Your task to perform on an android device: open a new tab in the chrome app Image 0: 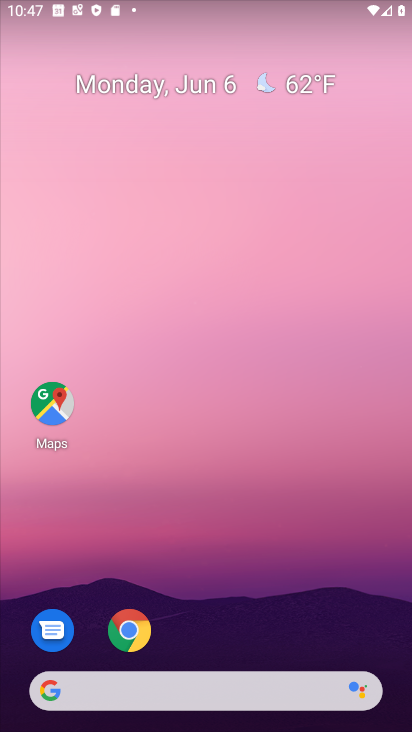
Step 0: drag from (300, 535) to (303, 164)
Your task to perform on an android device: open a new tab in the chrome app Image 1: 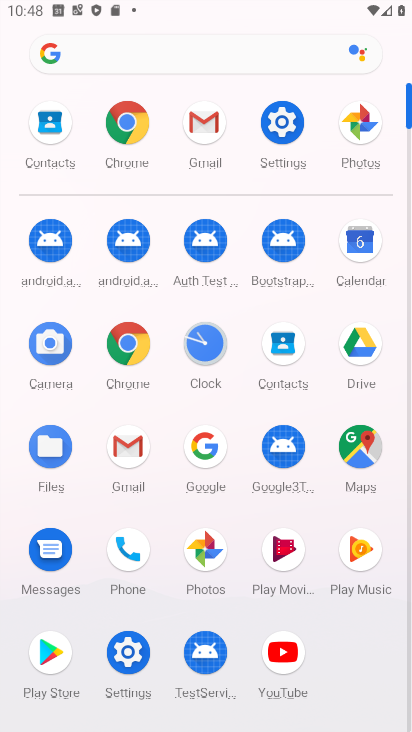
Step 1: click (139, 349)
Your task to perform on an android device: open a new tab in the chrome app Image 2: 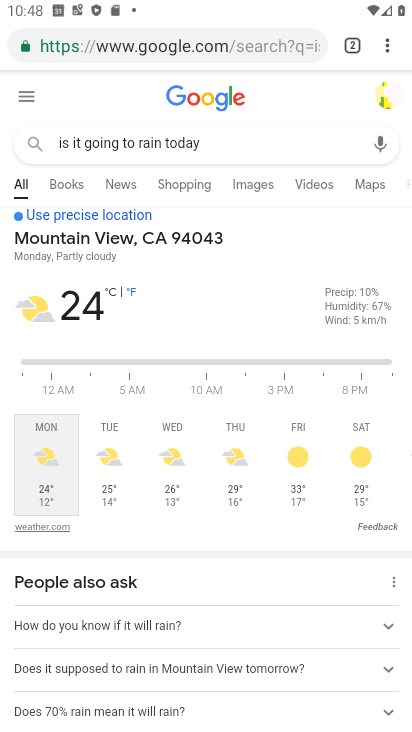
Step 2: click (355, 42)
Your task to perform on an android device: open a new tab in the chrome app Image 3: 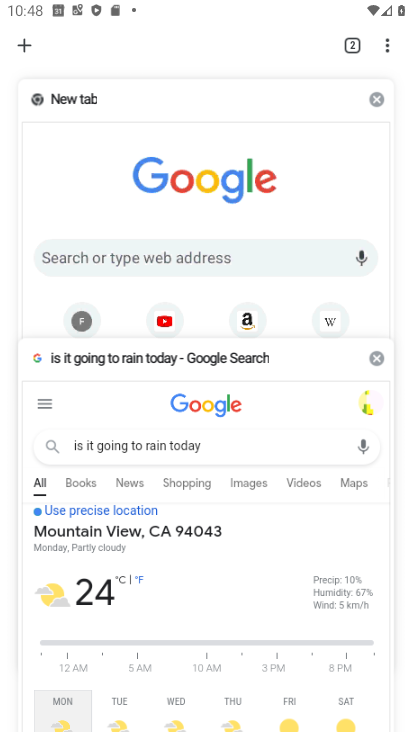
Step 3: click (21, 42)
Your task to perform on an android device: open a new tab in the chrome app Image 4: 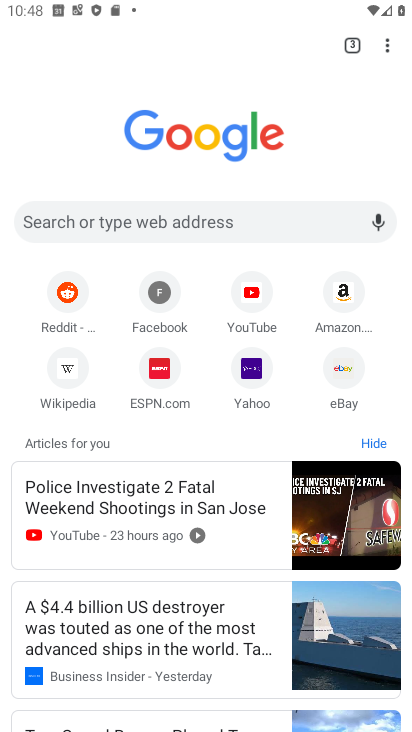
Step 4: task complete